Your task to perform on an android device: Open settings Image 0: 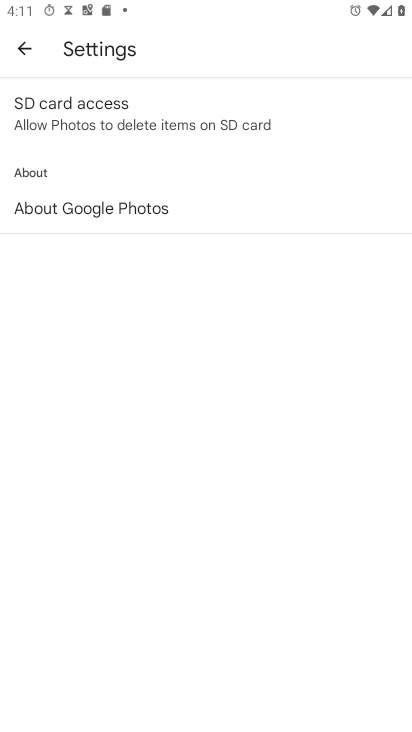
Step 0: press home button
Your task to perform on an android device: Open settings Image 1: 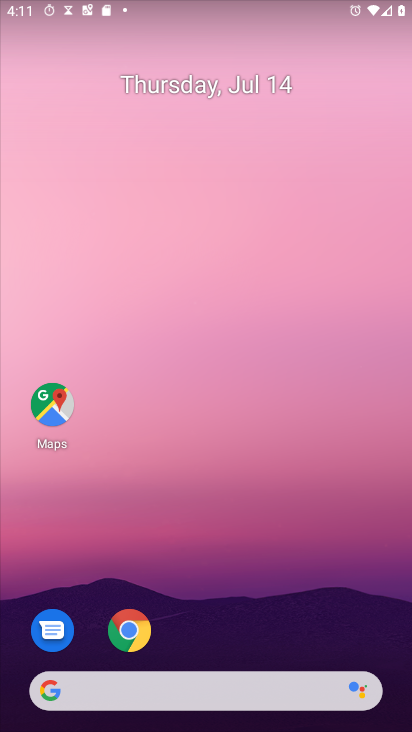
Step 1: drag from (243, 678) to (238, 205)
Your task to perform on an android device: Open settings Image 2: 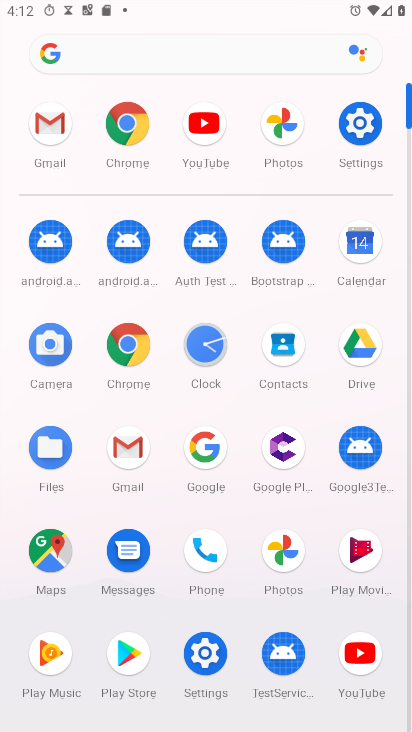
Step 2: click (357, 122)
Your task to perform on an android device: Open settings Image 3: 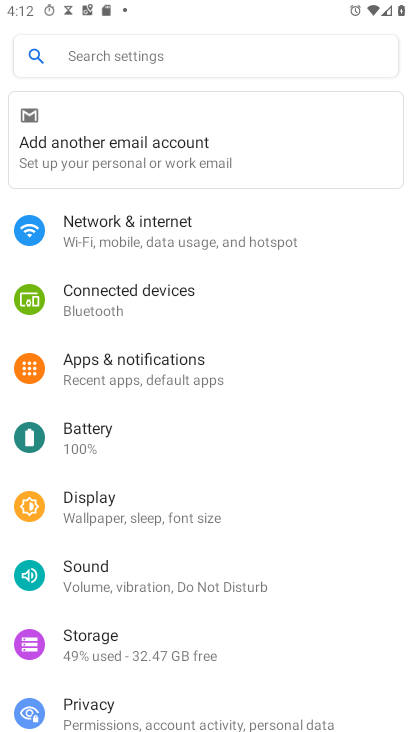
Step 3: task complete